Your task to perform on an android device: Show me popular videos on Youtube Image 0: 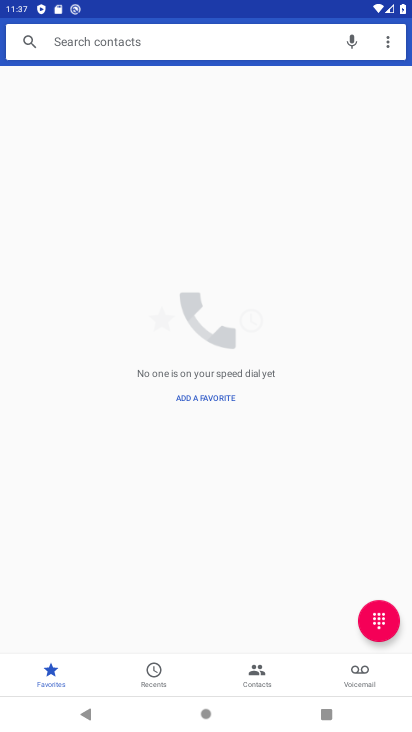
Step 0: press home button
Your task to perform on an android device: Show me popular videos on Youtube Image 1: 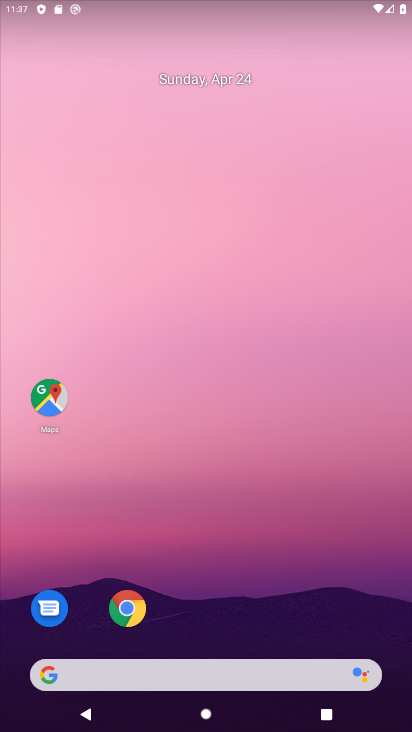
Step 1: drag from (233, 712) to (230, 129)
Your task to perform on an android device: Show me popular videos on Youtube Image 2: 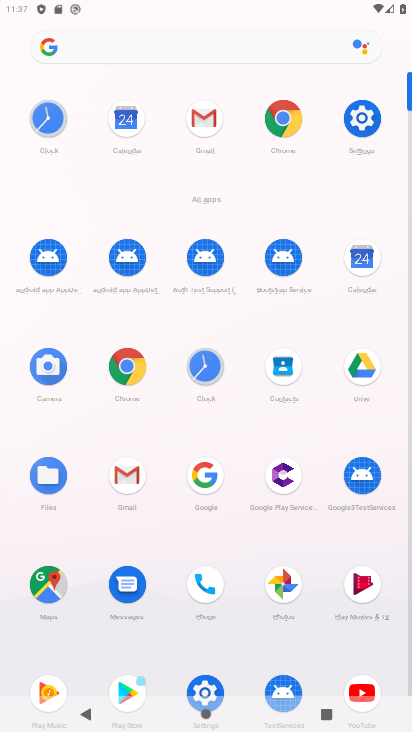
Step 2: click (365, 685)
Your task to perform on an android device: Show me popular videos on Youtube Image 3: 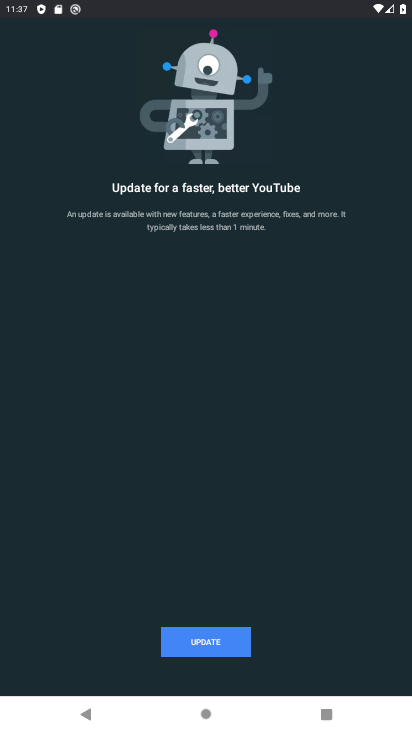
Step 3: task complete